Your task to perform on an android device: Open sound settings Image 0: 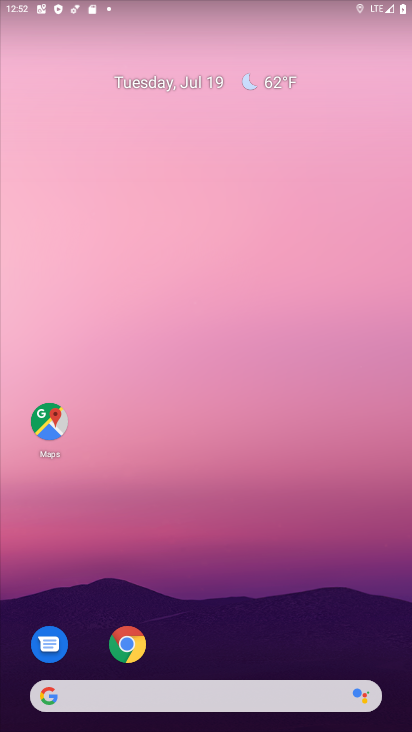
Step 0: drag from (258, 271) to (258, 118)
Your task to perform on an android device: Open sound settings Image 1: 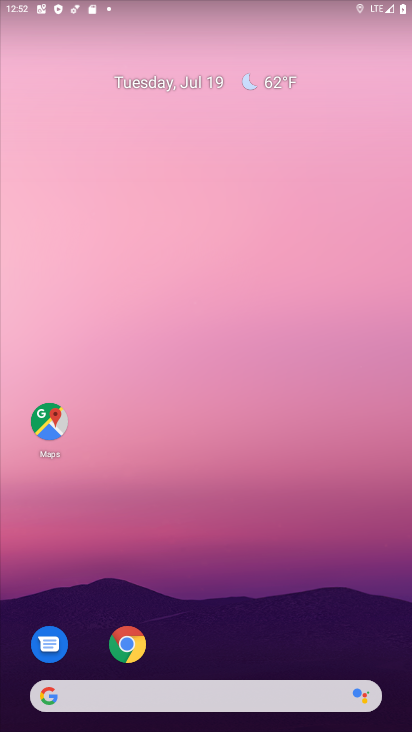
Step 1: drag from (218, 566) to (222, 140)
Your task to perform on an android device: Open sound settings Image 2: 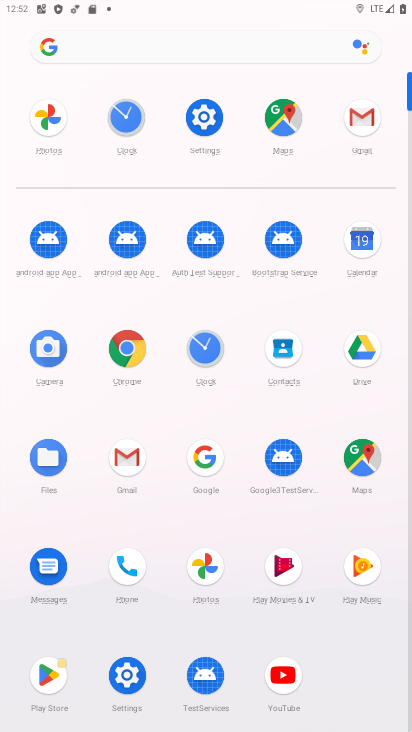
Step 2: click (198, 118)
Your task to perform on an android device: Open sound settings Image 3: 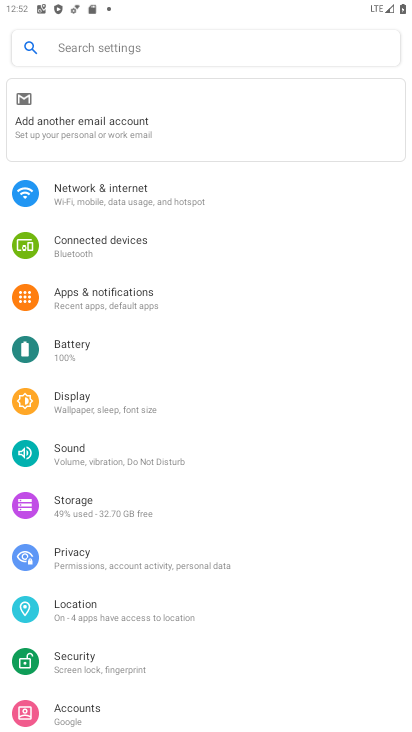
Step 3: click (74, 443)
Your task to perform on an android device: Open sound settings Image 4: 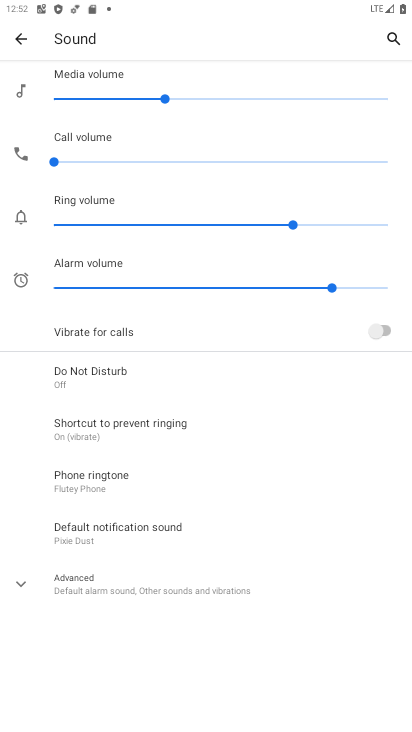
Step 4: task complete